Your task to perform on an android device: toggle show notifications on the lock screen Image 0: 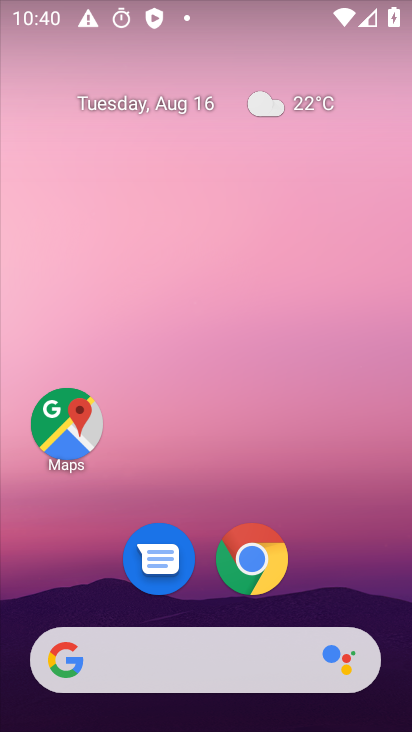
Step 0: drag from (198, 610) to (196, 17)
Your task to perform on an android device: toggle show notifications on the lock screen Image 1: 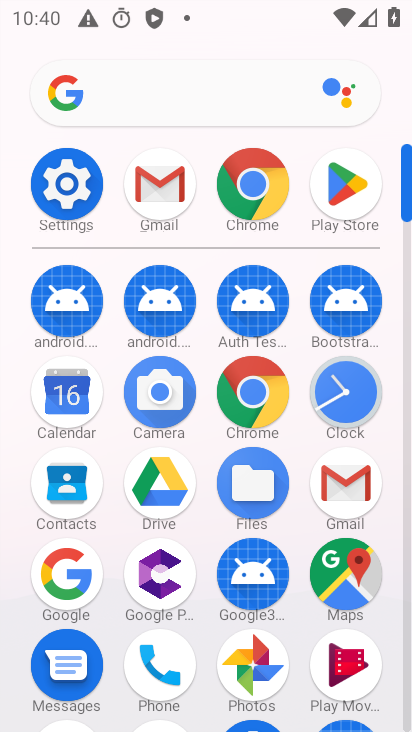
Step 1: click (64, 184)
Your task to perform on an android device: toggle show notifications on the lock screen Image 2: 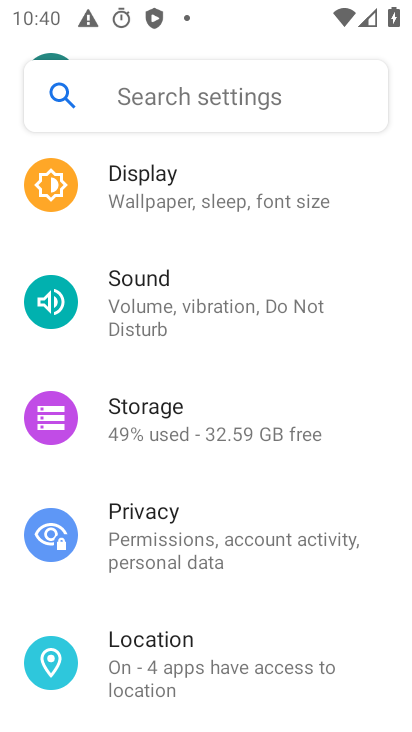
Step 2: drag from (206, 577) to (224, 273)
Your task to perform on an android device: toggle show notifications on the lock screen Image 3: 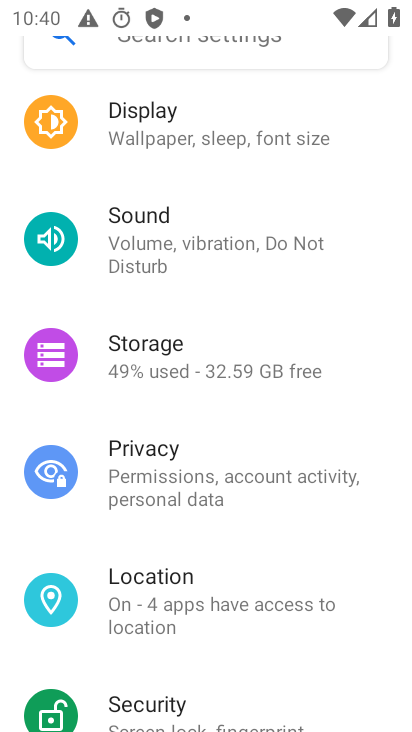
Step 3: drag from (218, 665) to (212, 382)
Your task to perform on an android device: toggle show notifications on the lock screen Image 4: 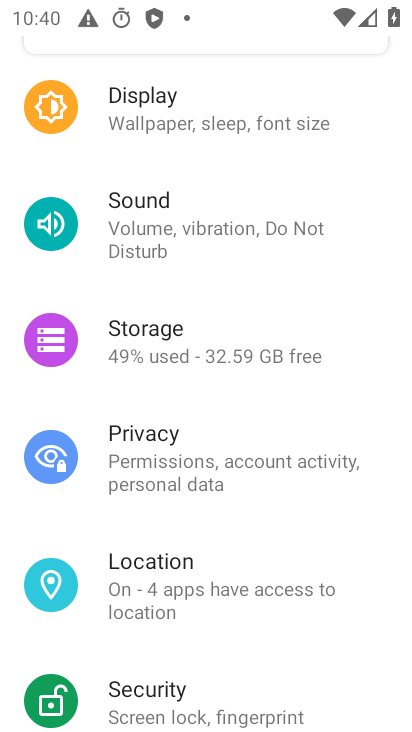
Step 4: drag from (227, 385) to (233, 342)
Your task to perform on an android device: toggle show notifications on the lock screen Image 5: 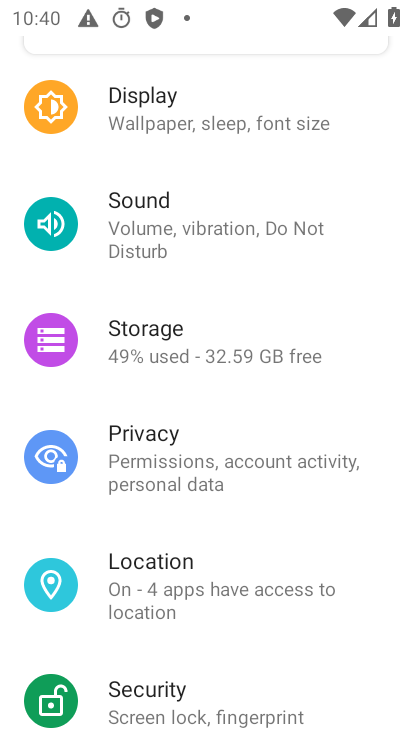
Step 5: drag from (207, 603) to (215, 371)
Your task to perform on an android device: toggle show notifications on the lock screen Image 6: 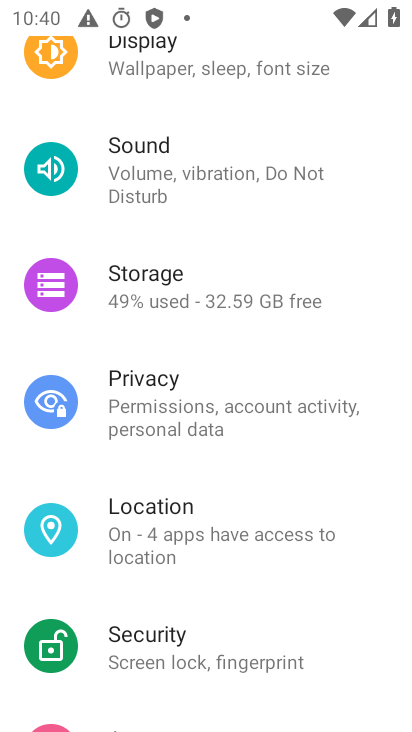
Step 6: drag from (191, 633) to (217, 346)
Your task to perform on an android device: toggle show notifications on the lock screen Image 7: 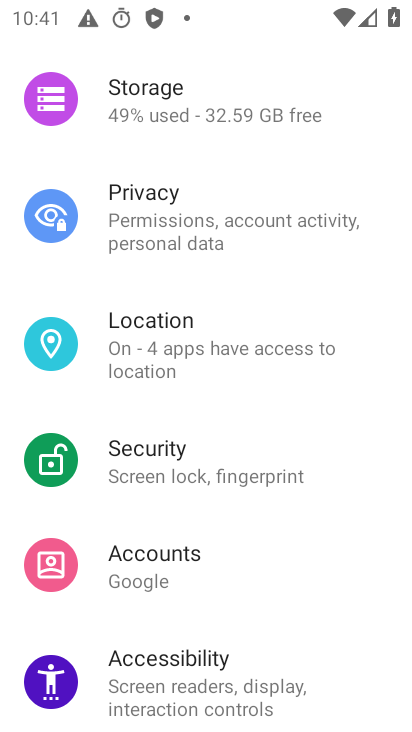
Step 7: drag from (220, 600) to (246, 412)
Your task to perform on an android device: toggle show notifications on the lock screen Image 8: 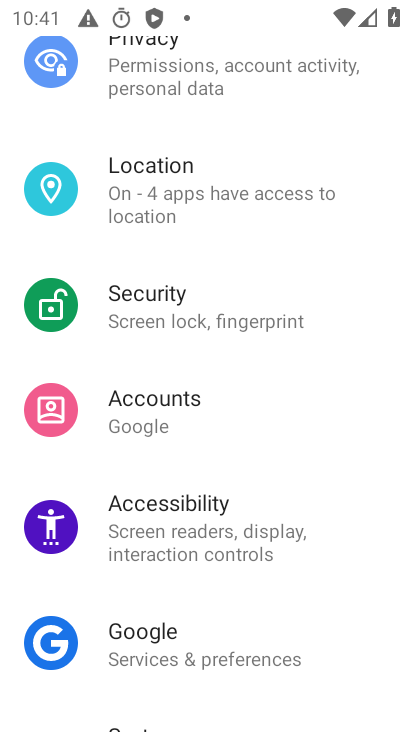
Step 8: drag from (239, 247) to (229, 665)
Your task to perform on an android device: toggle show notifications on the lock screen Image 9: 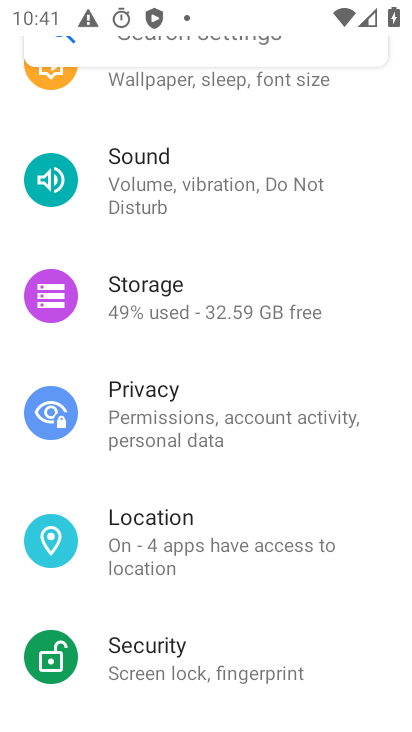
Step 9: drag from (252, 238) to (192, 601)
Your task to perform on an android device: toggle show notifications on the lock screen Image 10: 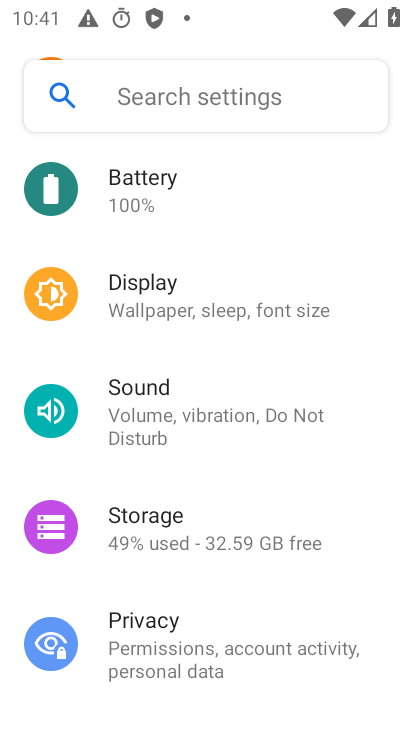
Step 10: drag from (192, 263) to (190, 586)
Your task to perform on an android device: toggle show notifications on the lock screen Image 11: 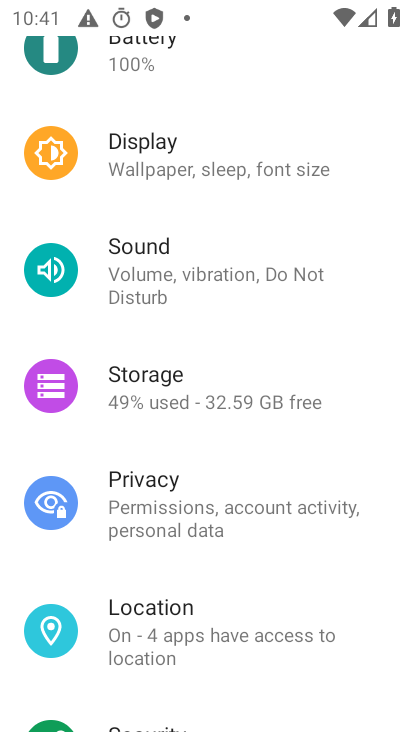
Step 11: drag from (233, 221) to (224, 512)
Your task to perform on an android device: toggle show notifications on the lock screen Image 12: 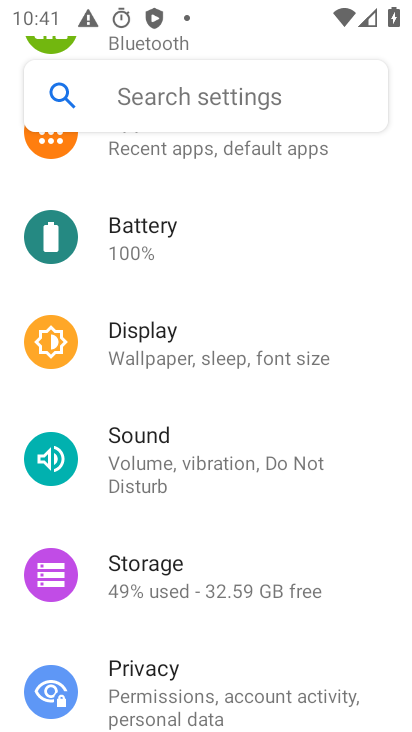
Step 12: drag from (172, 197) to (165, 477)
Your task to perform on an android device: toggle show notifications on the lock screen Image 13: 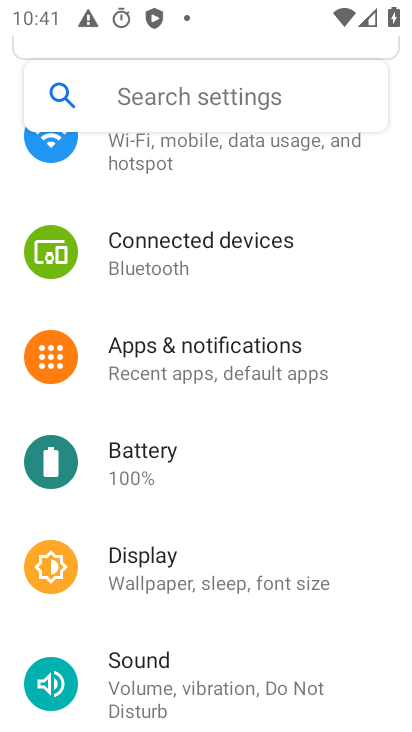
Step 13: click (142, 342)
Your task to perform on an android device: toggle show notifications on the lock screen Image 14: 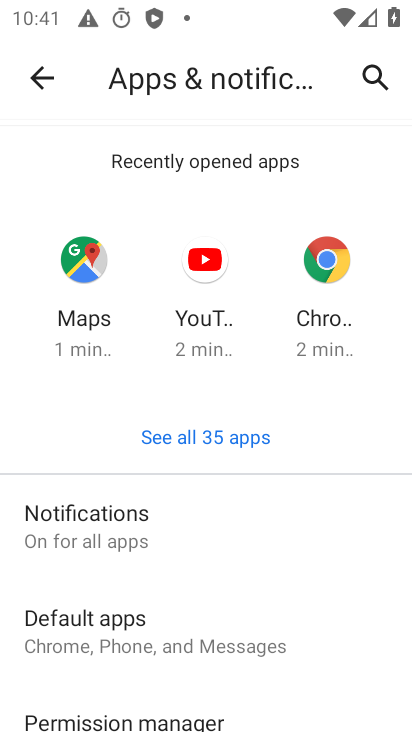
Step 14: click (85, 533)
Your task to perform on an android device: toggle show notifications on the lock screen Image 15: 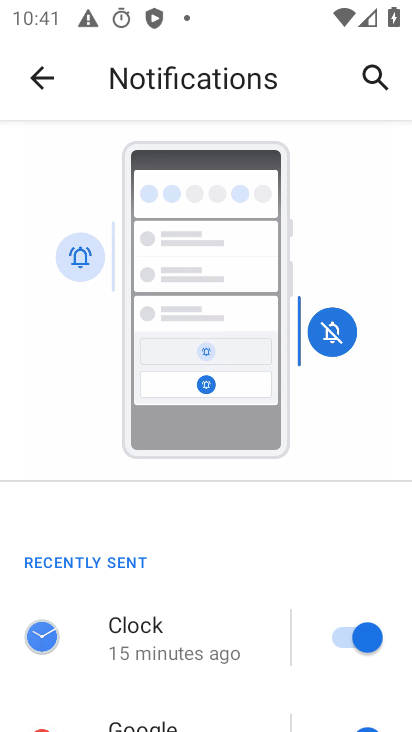
Step 15: drag from (232, 571) to (243, 160)
Your task to perform on an android device: toggle show notifications on the lock screen Image 16: 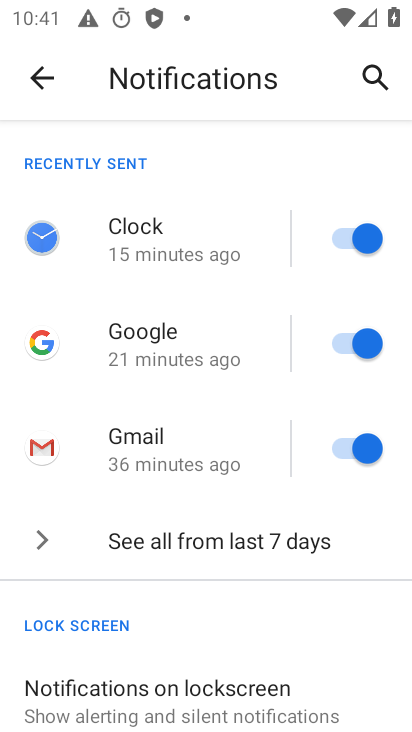
Step 16: click (152, 701)
Your task to perform on an android device: toggle show notifications on the lock screen Image 17: 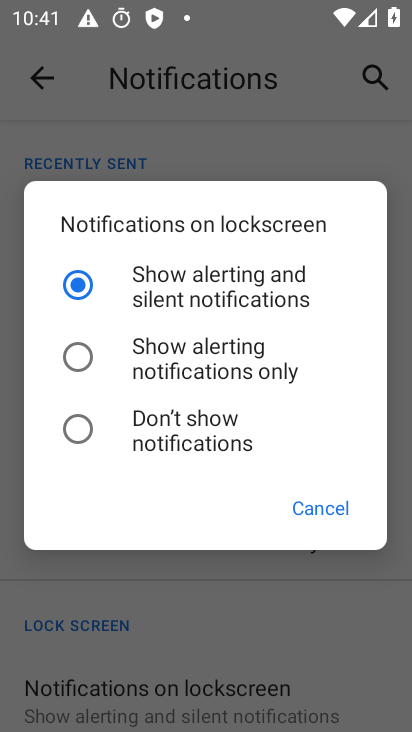
Step 17: click (80, 430)
Your task to perform on an android device: toggle show notifications on the lock screen Image 18: 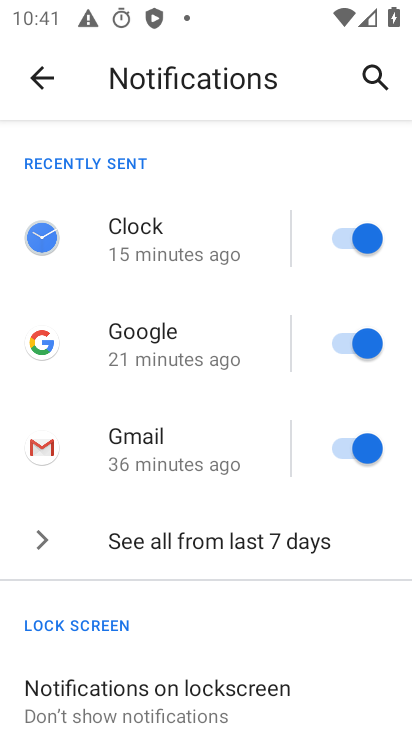
Step 18: task complete